Your task to perform on an android device: turn on translation in the chrome app Image 0: 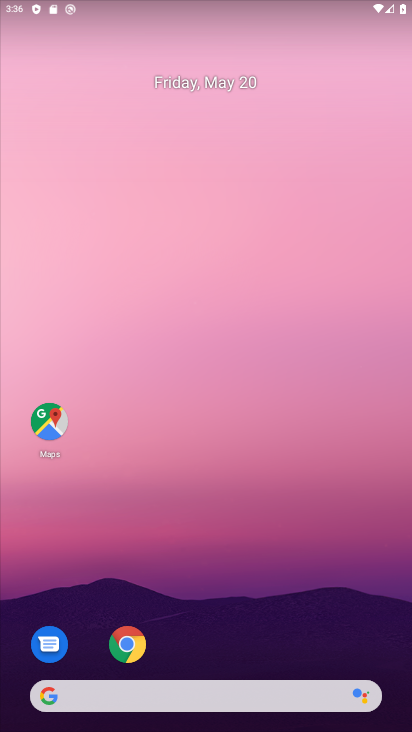
Step 0: drag from (266, 573) to (266, 143)
Your task to perform on an android device: turn on translation in the chrome app Image 1: 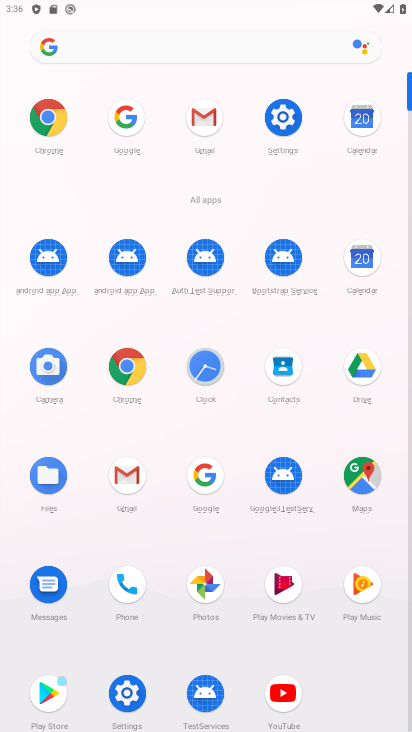
Step 1: click (208, 492)
Your task to perform on an android device: turn on translation in the chrome app Image 2: 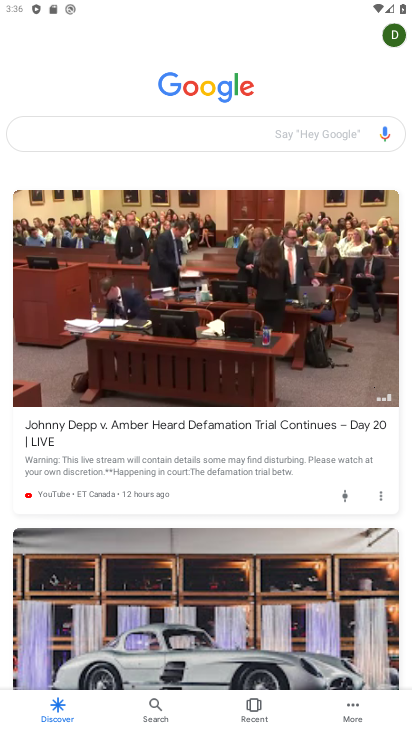
Step 2: press home button
Your task to perform on an android device: turn on translation in the chrome app Image 3: 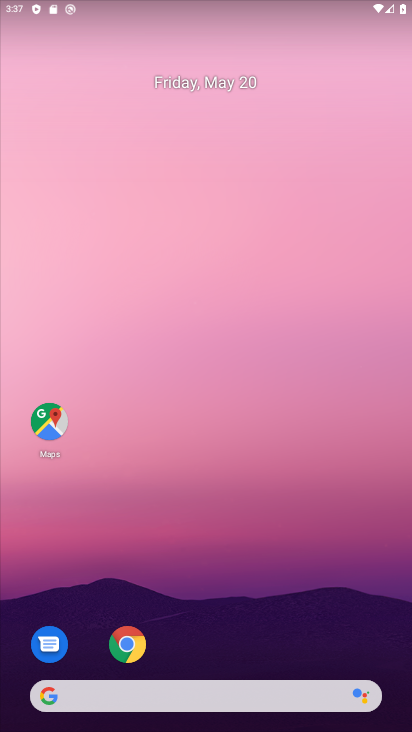
Step 3: click (134, 633)
Your task to perform on an android device: turn on translation in the chrome app Image 4: 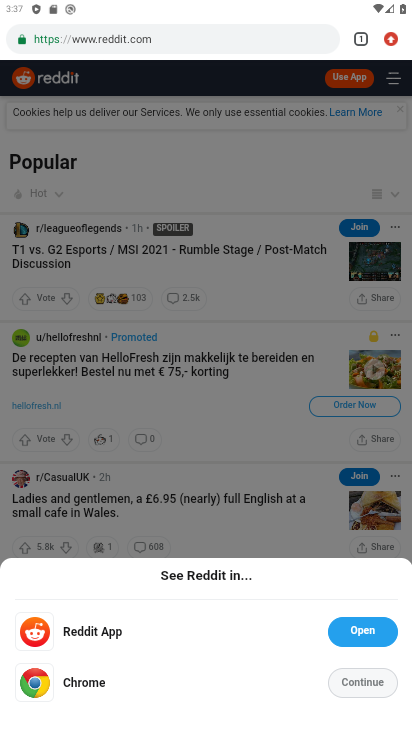
Step 4: click (398, 44)
Your task to perform on an android device: turn on translation in the chrome app Image 5: 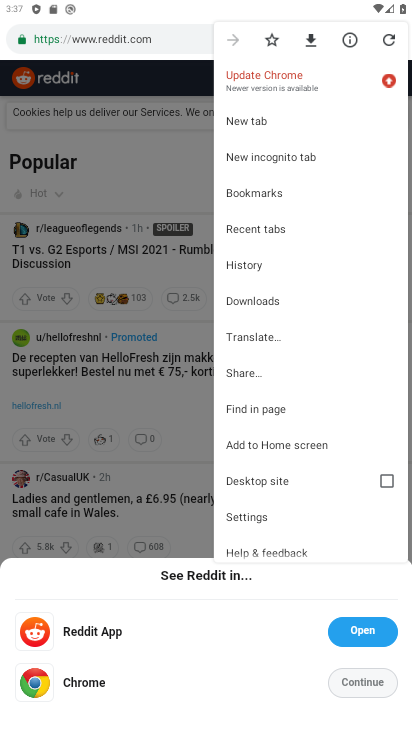
Step 5: click (261, 522)
Your task to perform on an android device: turn on translation in the chrome app Image 6: 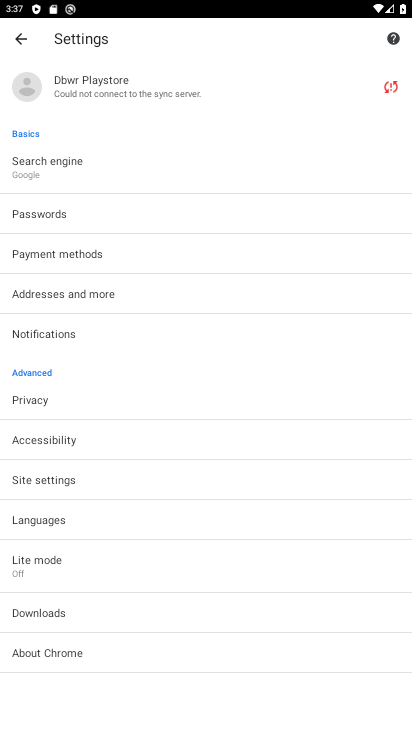
Step 6: drag from (249, 658) to (248, 536)
Your task to perform on an android device: turn on translation in the chrome app Image 7: 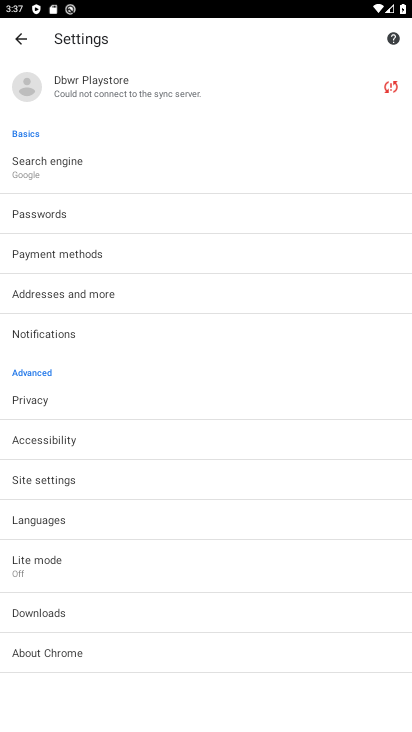
Step 7: click (103, 526)
Your task to perform on an android device: turn on translation in the chrome app Image 8: 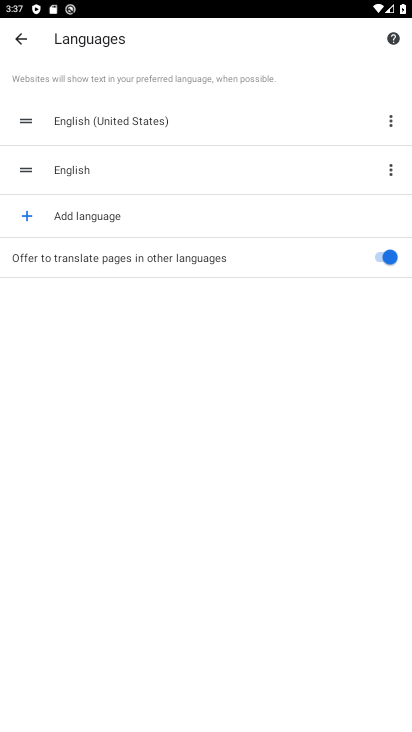
Step 8: click (392, 259)
Your task to perform on an android device: turn on translation in the chrome app Image 9: 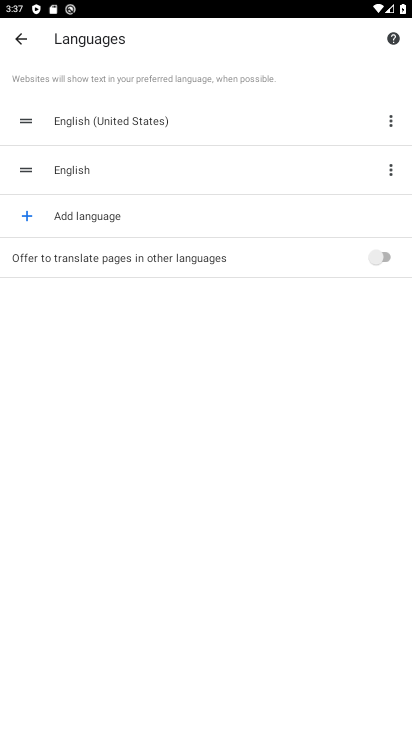
Step 9: click (381, 249)
Your task to perform on an android device: turn on translation in the chrome app Image 10: 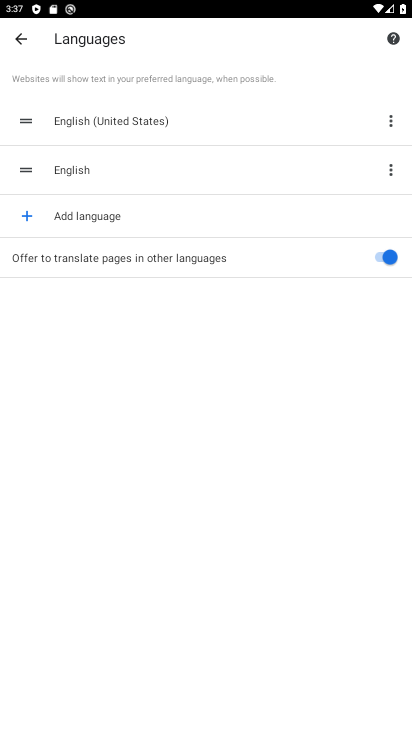
Step 10: task complete